Your task to perform on an android device: Open the calendar app, open the side menu, and click the "Day" option Image 0: 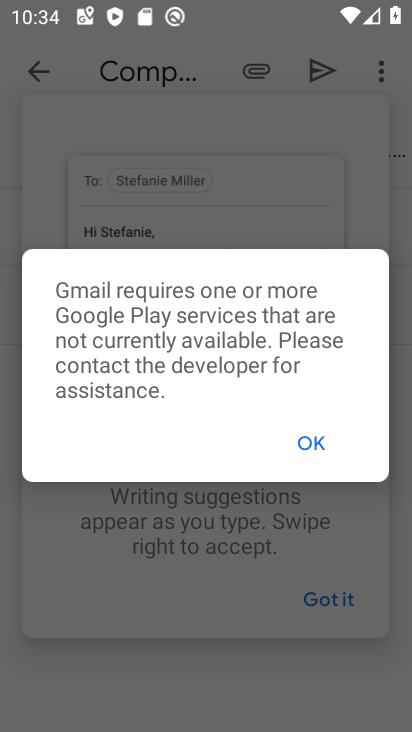
Step 0: press home button
Your task to perform on an android device: Open the calendar app, open the side menu, and click the "Day" option Image 1: 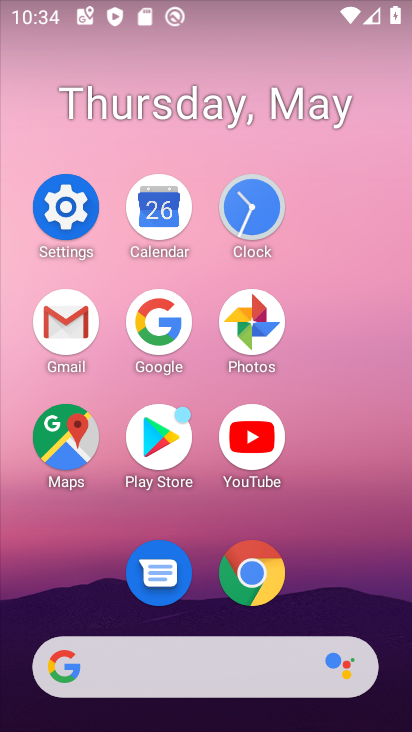
Step 1: click (149, 211)
Your task to perform on an android device: Open the calendar app, open the side menu, and click the "Day" option Image 2: 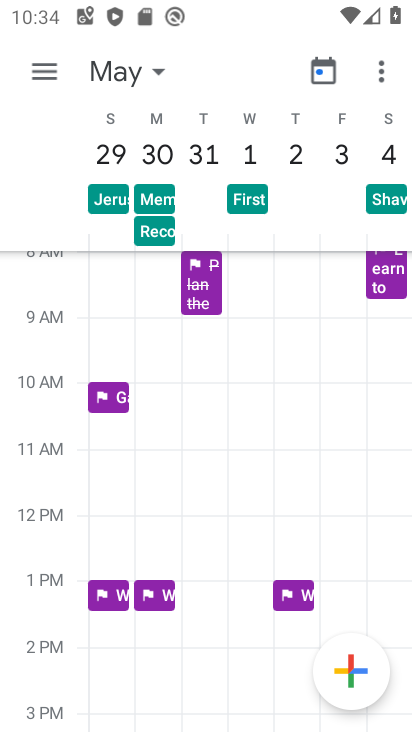
Step 2: click (58, 69)
Your task to perform on an android device: Open the calendar app, open the side menu, and click the "Day" option Image 3: 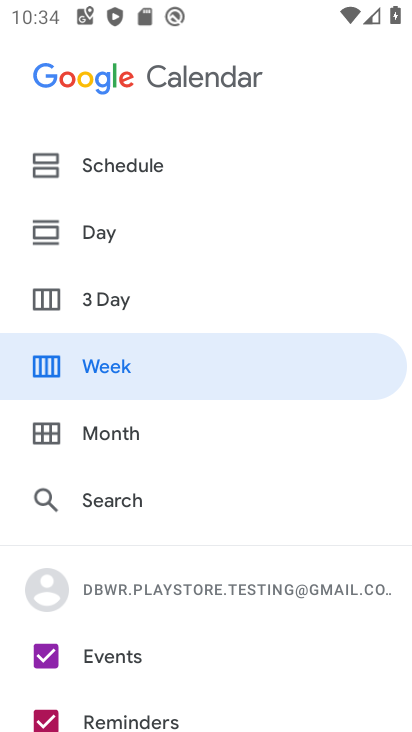
Step 3: click (130, 223)
Your task to perform on an android device: Open the calendar app, open the side menu, and click the "Day" option Image 4: 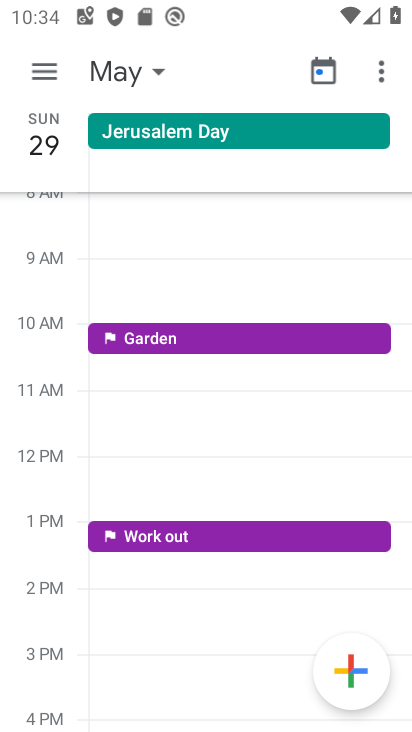
Step 4: task complete